Your task to perform on an android device: delete a single message in the gmail app Image 0: 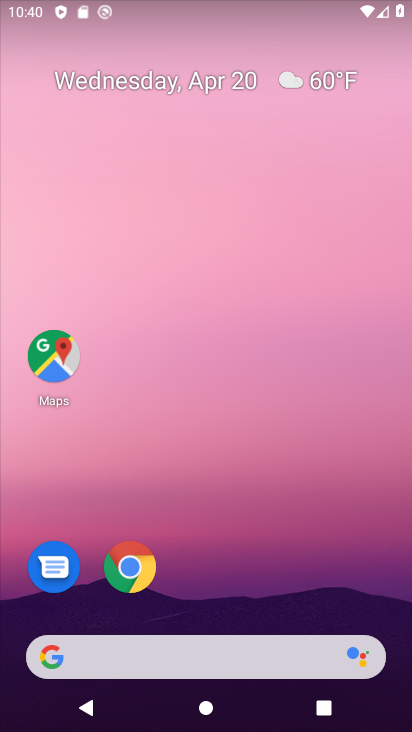
Step 0: drag from (267, 567) to (192, 20)
Your task to perform on an android device: delete a single message in the gmail app Image 1: 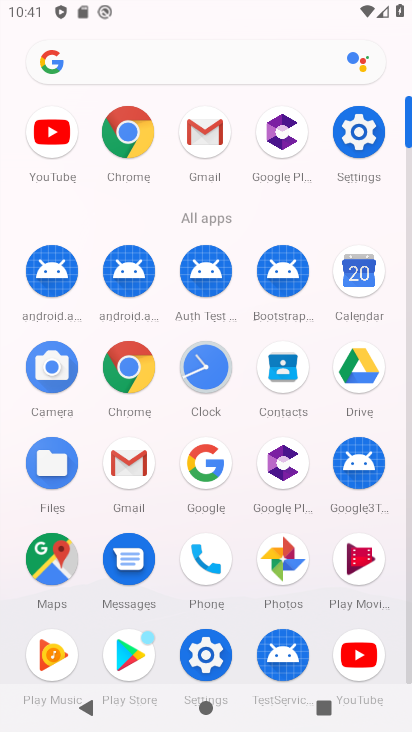
Step 1: click (106, 466)
Your task to perform on an android device: delete a single message in the gmail app Image 2: 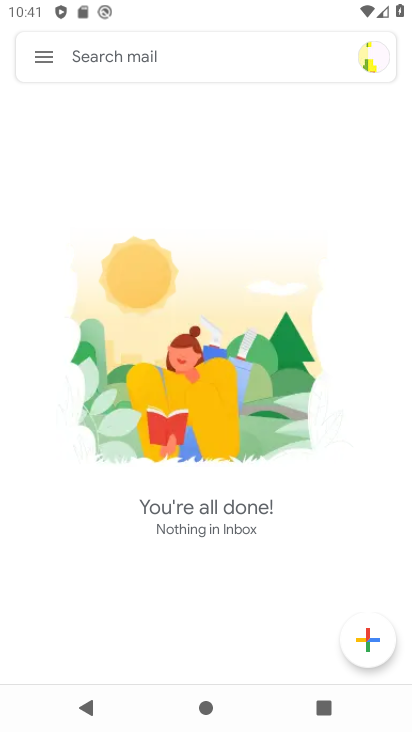
Step 2: click (33, 59)
Your task to perform on an android device: delete a single message in the gmail app Image 3: 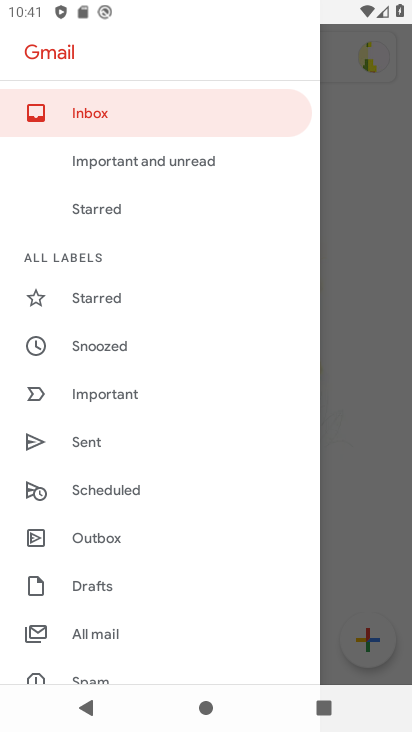
Step 3: click (111, 635)
Your task to perform on an android device: delete a single message in the gmail app Image 4: 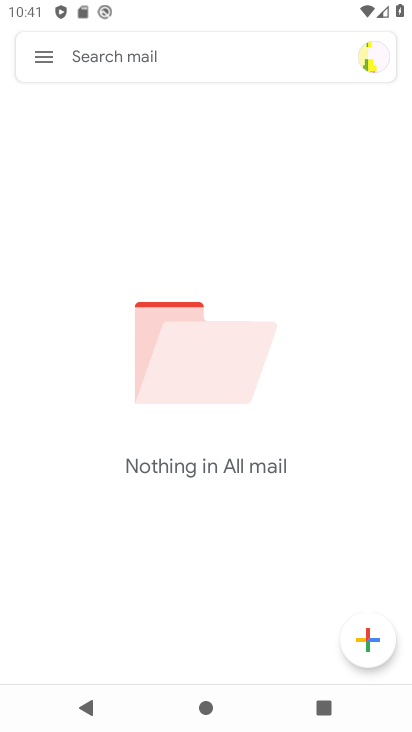
Step 4: task complete